Your task to perform on an android device: refresh tabs in the chrome app Image 0: 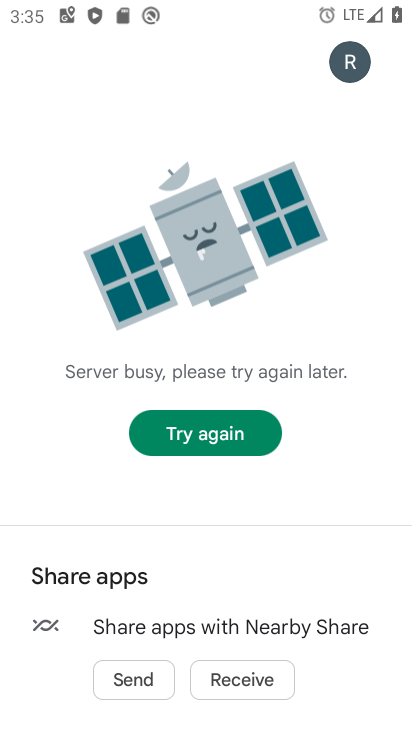
Step 0: press home button
Your task to perform on an android device: refresh tabs in the chrome app Image 1: 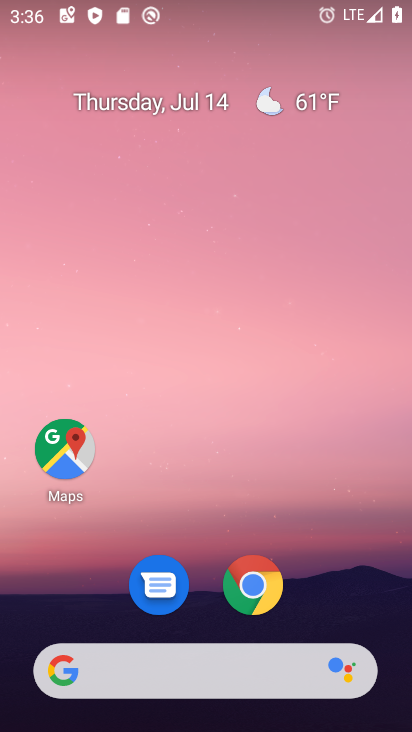
Step 1: click (274, 584)
Your task to perform on an android device: refresh tabs in the chrome app Image 2: 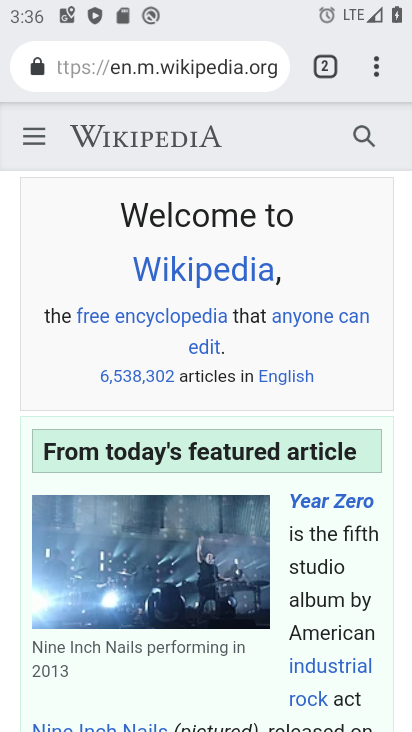
Step 2: click (376, 68)
Your task to perform on an android device: refresh tabs in the chrome app Image 3: 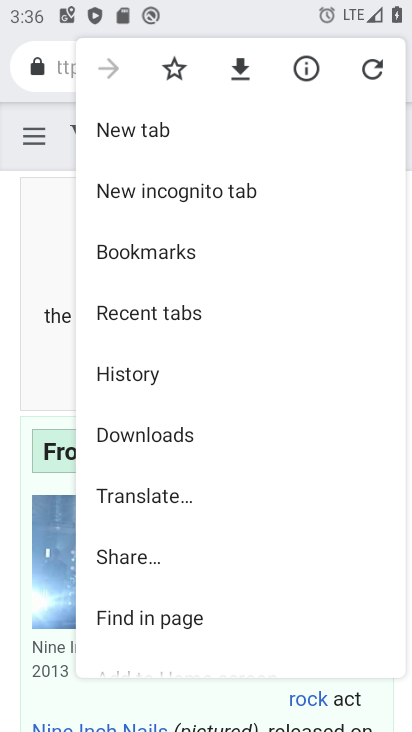
Step 3: click (369, 68)
Your task to perform on an android device: refresh tabs in the chrome app Image 4: 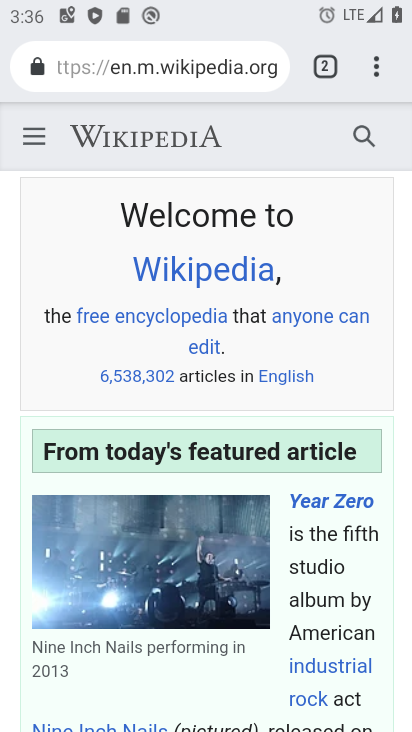
Step 4: task complete